Your task to perform on an android device: What is the news today? Image 0: 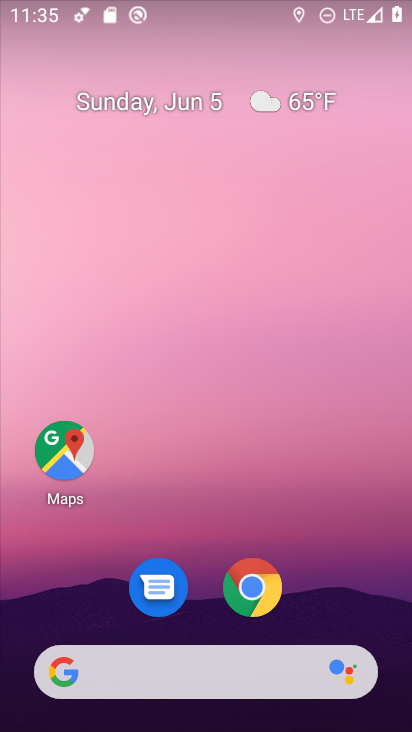
Step 0: click (225, 667)
Your task to perform on an android device: What is the news today? Image 1: 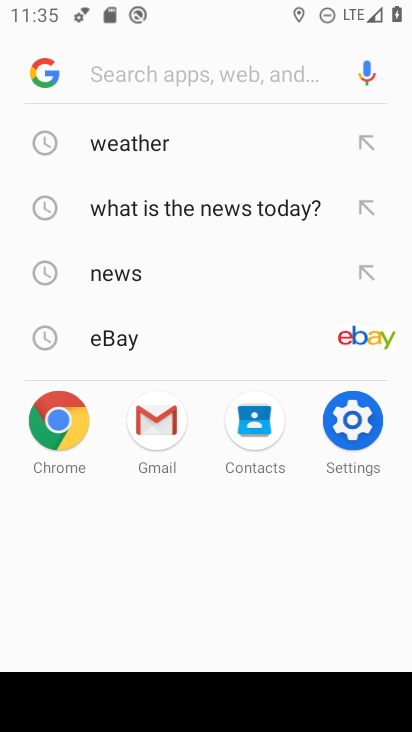
Step 1: click (98, 265)
Your task to perform on an android device: What is the news today? Image 2: 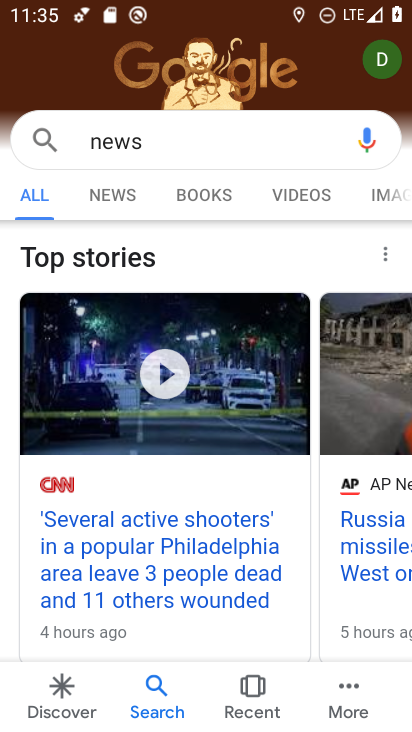
Step 2: task complete